Your task to perform on an android device: see sites visited before in the chrome app Image 0: 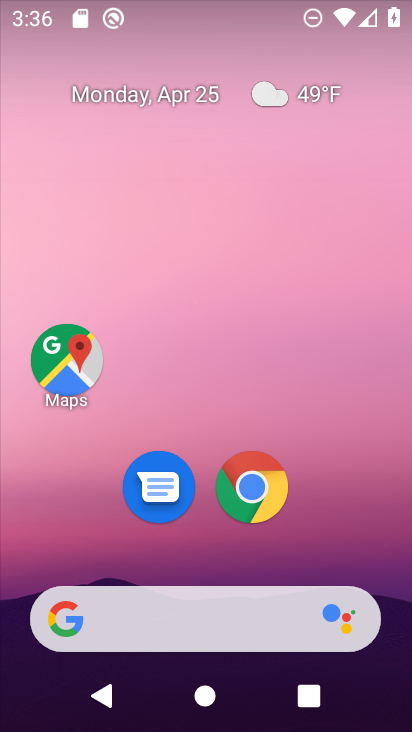
Step 0: click (244, 494)
Your task to perform on an android device: see sites visited before in the chrome app Image 1: 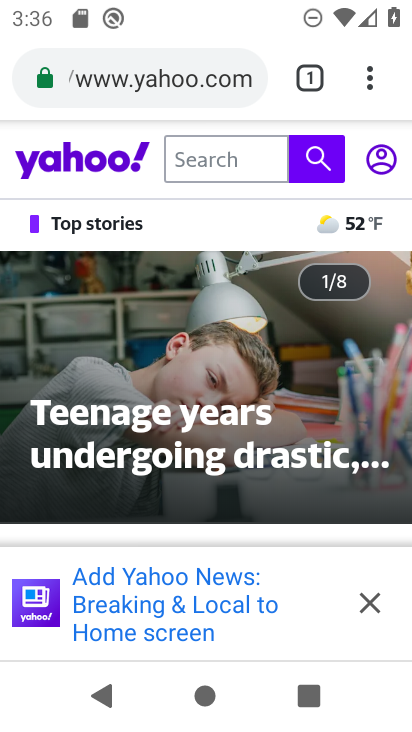
Step 1: click (365, 79)
Your task to perform on an android device: see sites visited before in the chrome app Image 2: 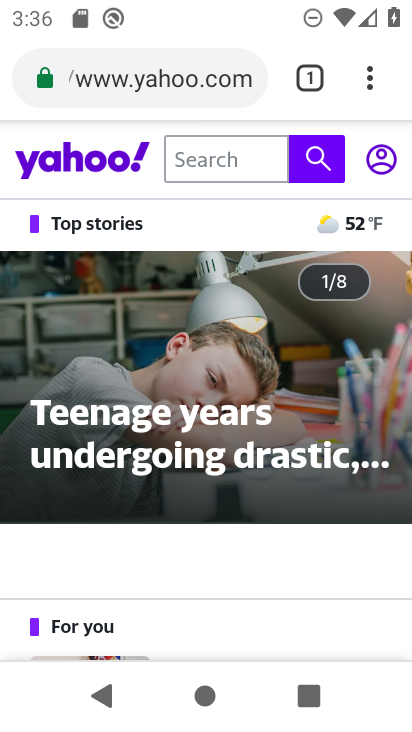
Step 2: task complete